Your task to perform on an android device: see tabs open on other devices in the chrome app Image 0: 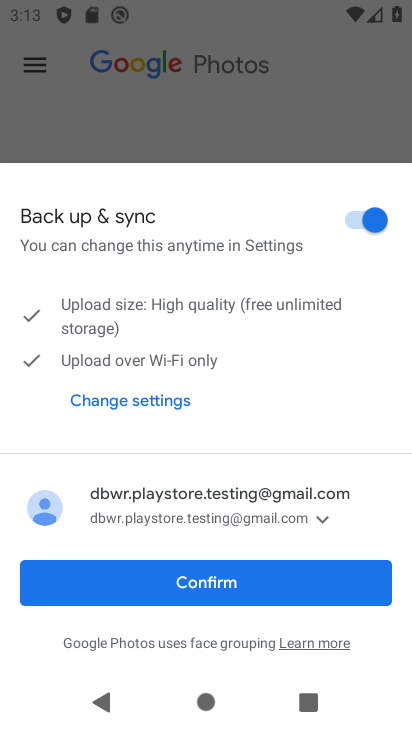
Step 0: press home button
Your task to perform on an android device: see tabs open on other devices in the chrome app Image 1: 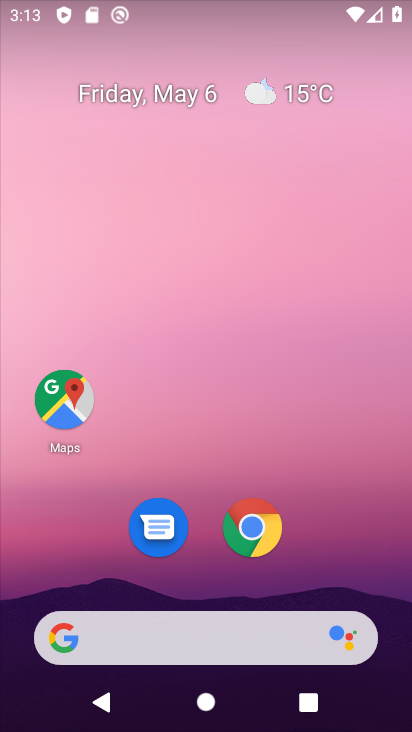
Step 1: drag from (326, 557) to (249, 108)
Your task to perform on an android device: see tabs open on other devices in the chrome app Image 2: 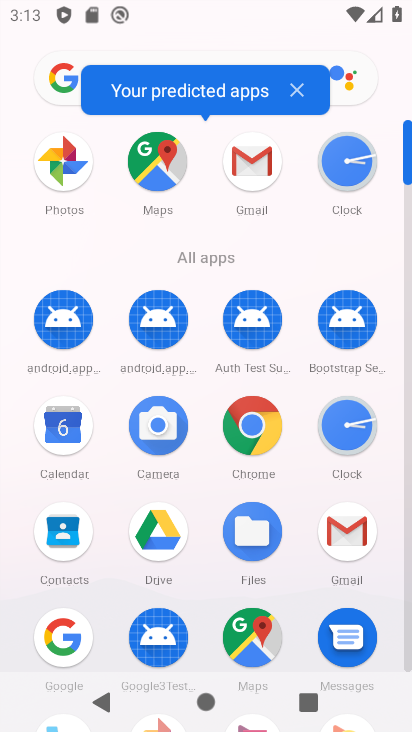
Step 2: click (253, 446)
Your task to perform on an android device: see tabs open on other devices in the chrome app Image 3: 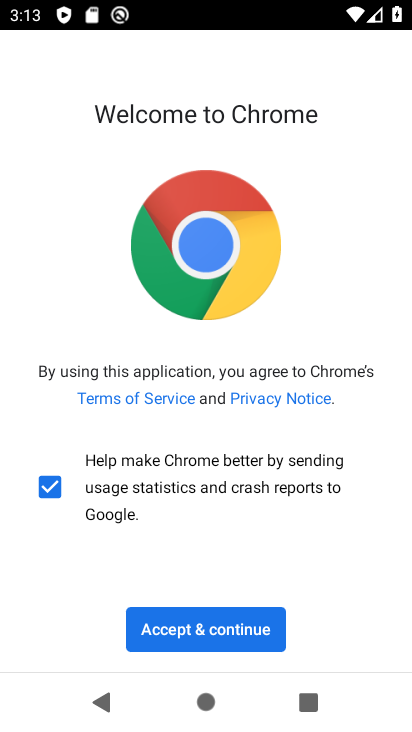
Step 3: click (197, 623)
Your task to perform on an android device: see tabs open on other devices in the chrome app Image 4: 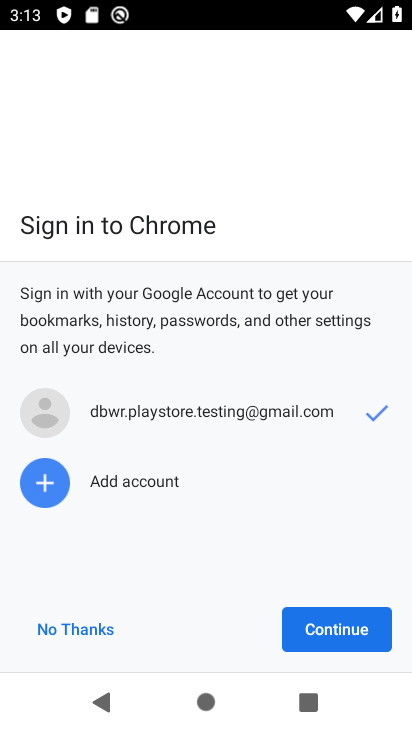
Step 4: click (331, 616)
Your task to perform on an android device: see tabs open on other devices in the chrome app Image 5: 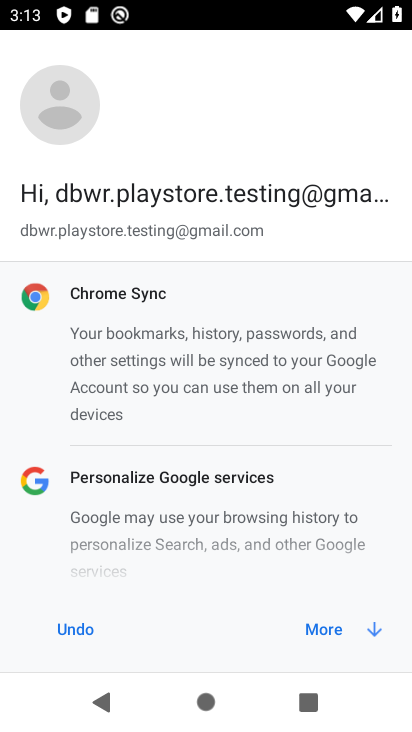
Step 5: click (331, 632)
Your task to perform on an android device: see tabs open on other devices in the chrome app Image 6: 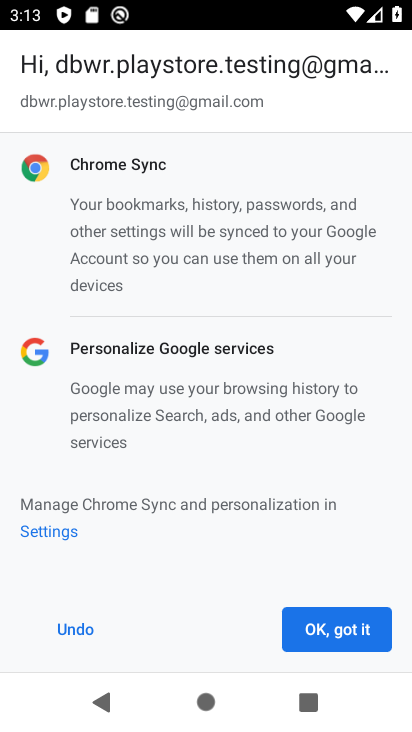
Step 6: click (317, 641)
Your task to perform on an android device: see tabs open on other devices in the chrome app Image 7: 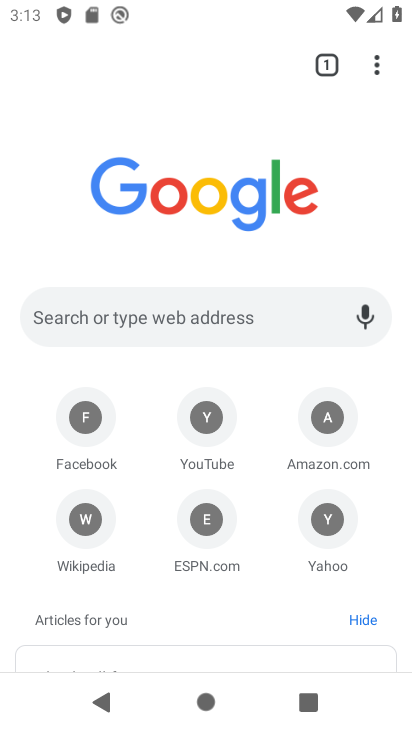
Step 7: click (374, 57)
Your task to perform on an android device: see tabs open on other devices in the chrome app Image 8: 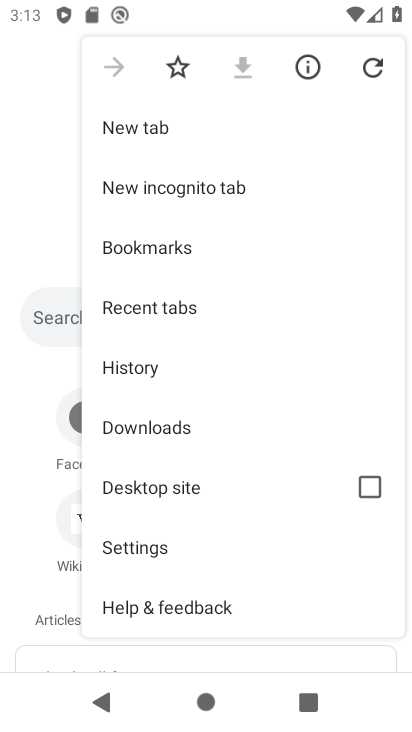
Step 8: click (165, 310)
Your task to perform on an android device: see tabs open on other devices in the chrome app Image 9: 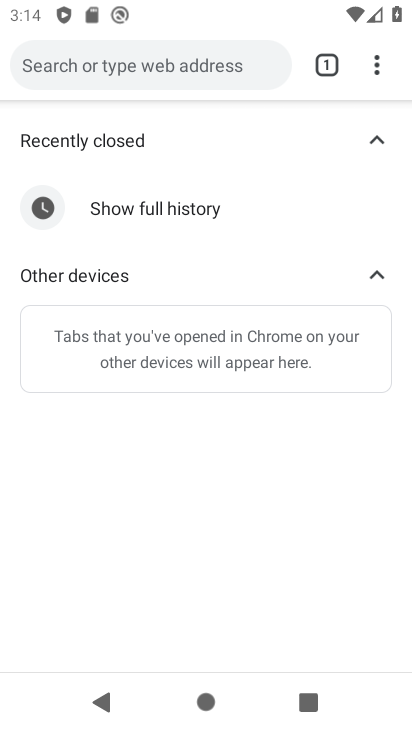
Step 9: task complete